Your task to perform on an android device: Open the Play Movies app and select the watchlist tab. Image 0: 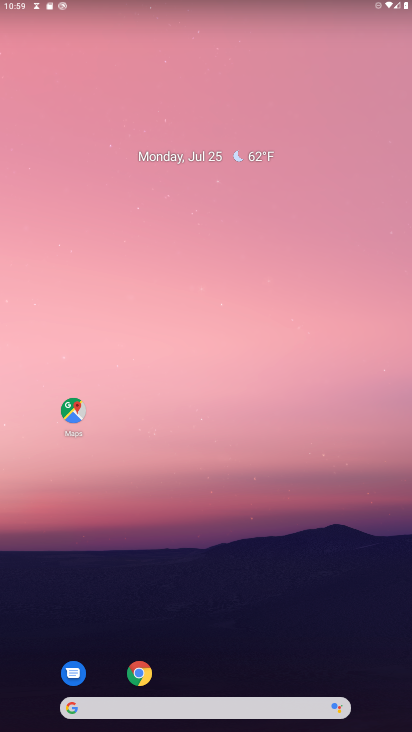
Step 0: press home button
Your task to perform on an android device: Open the Play Movies app and select the watchlist tab. Image 1: 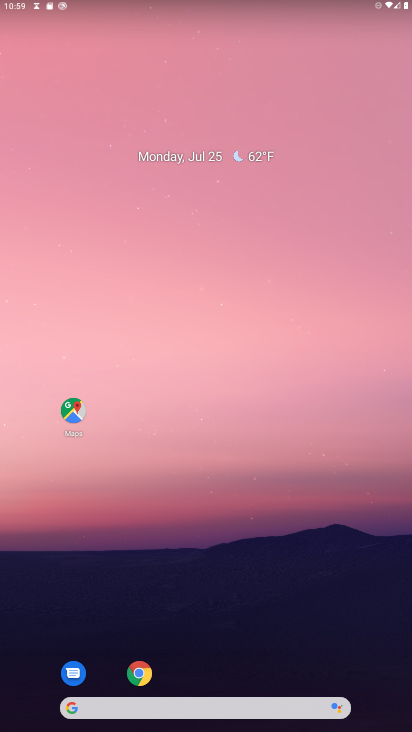
Step 1: drag from (256, 633) to (267, 163)
Your task to perform on an android device: Open the Play Movies app and select the watchlist tab. Image 2: 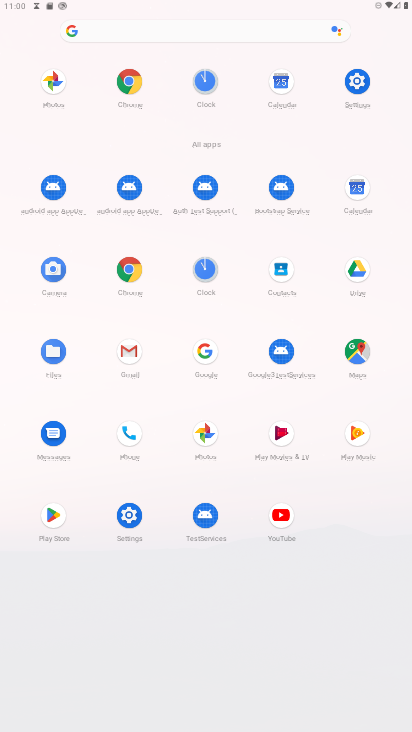
Step 2: drag from (134, 436) to (174, 406)
Your task to perform on an android device: Open the Play Movies app and select the watchlist tab. Image 3: 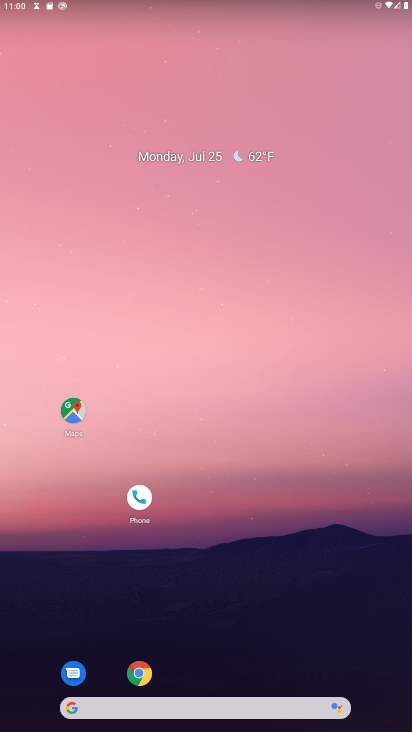
Step 3: press home button
Your task to perform on an android device: Open the Play Movies app and select the watchlist tab. Image 4: 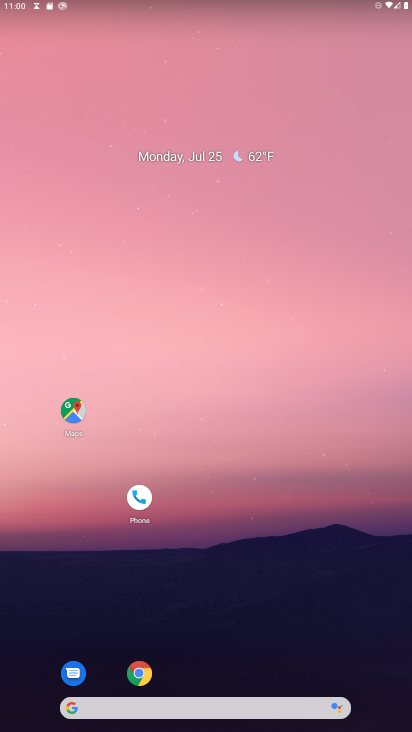
Step 4: drag from (300, 533) to (307, 109)
Your task to perform on an android device: Open the Play Movies app and select the watchlist tab. Image 5: 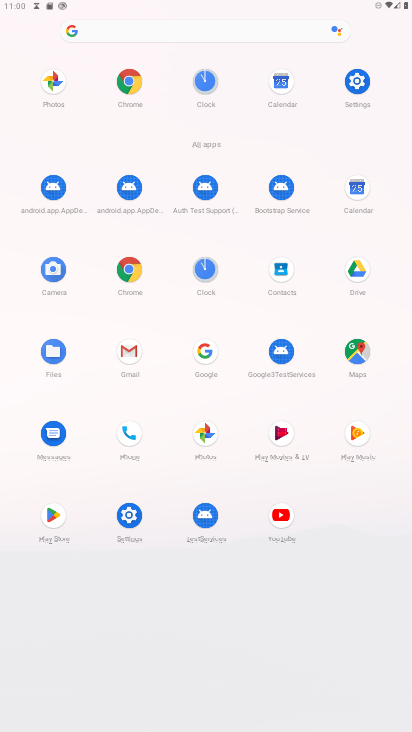
Step 5: click (280, 430)
Your task to perform on an android device: Open the Play Movies app and select the watchlist tab. Image 6: 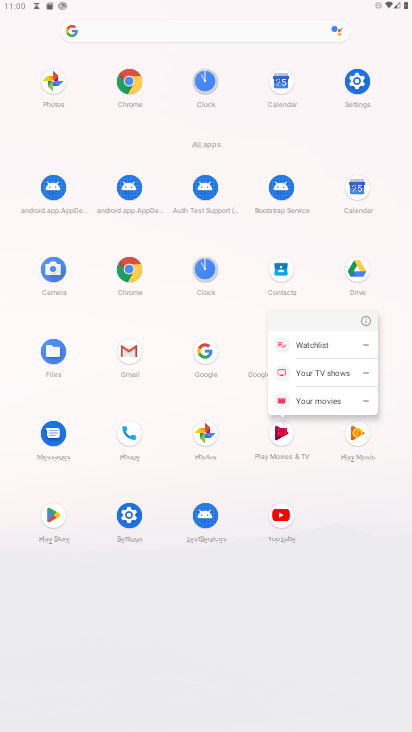
Step 6: click (281, 436)
Your task to perform on an android device: Open the Play Movies app and select the watchlist tab. Image 7: 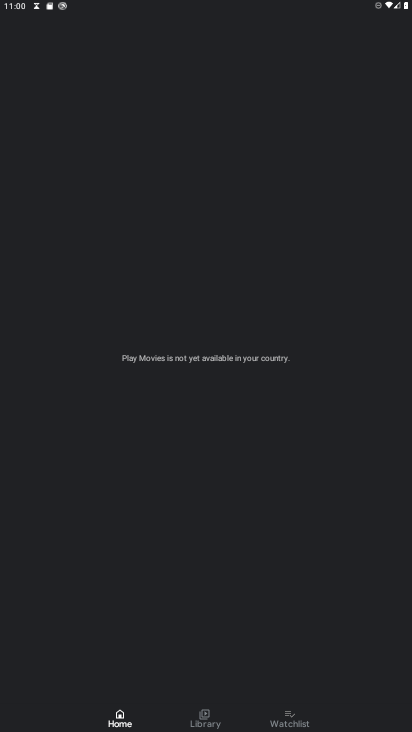
Step 7: click (290, 718)
Your task to perform on an android device: Open the Play Movies app and select the watchlist tab. Image 8: 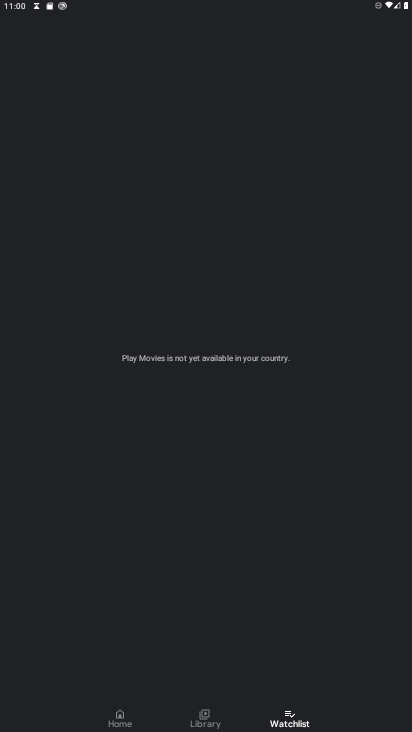
Step 8: task complete